Your task to perform on an android device: Open calendar and show me the first week of next month Image 0: 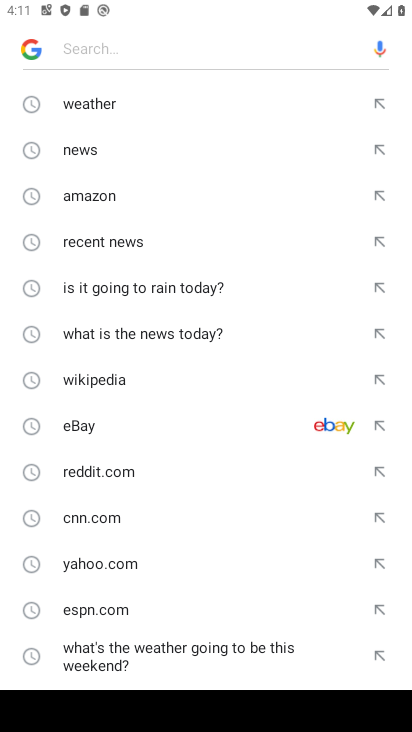
Step 0: press home button
Your task to perform on an android device: Open calendar and show me the first week of next month Image 1: 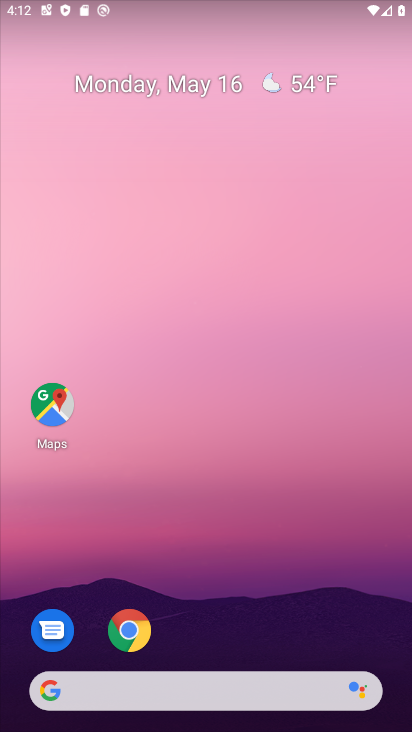
Step 1: drag from (237, 635) to (161, 165)
Your task to perform on an android device: Open calendar and show me the first week of next month Image 2: 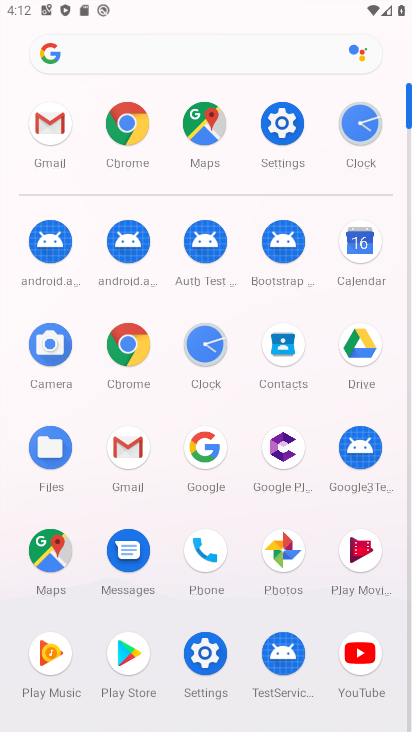
Step 2: click (375, 227)
Your task to perform on an android device: Open calendar and show me the first week of next month Image 3: 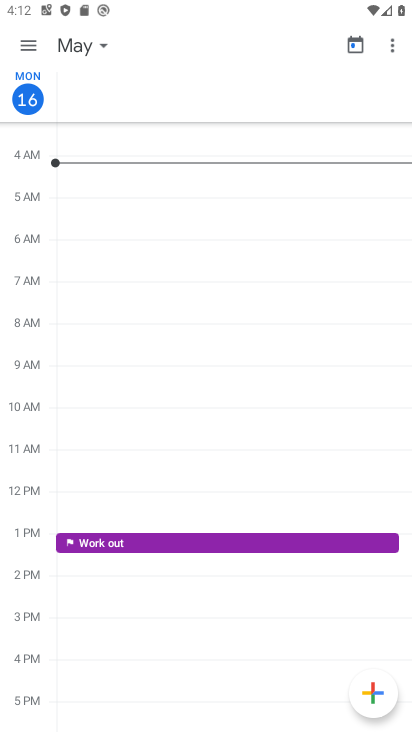
Step 3: click (90, 46)
Your task to perform on an android device: Open calendar and show me the first week of next month Image 4: 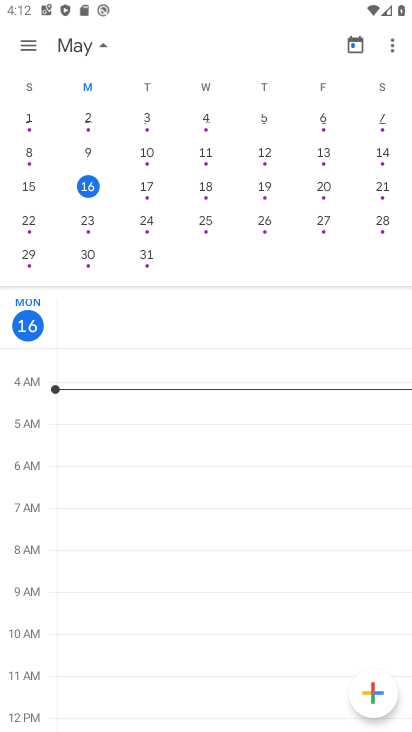
Step 4: drag from (395, 167) to (75, 146)
Your task to perform on an android device: Open calendar and show me the first week of next month Image 5: 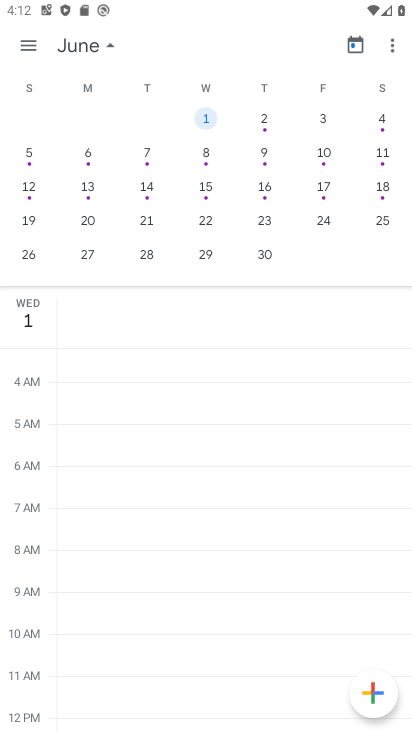
Step 5: click (206, 119)
Your task to perform on an android device: Open calendar and show me the first week of next month Image 6: 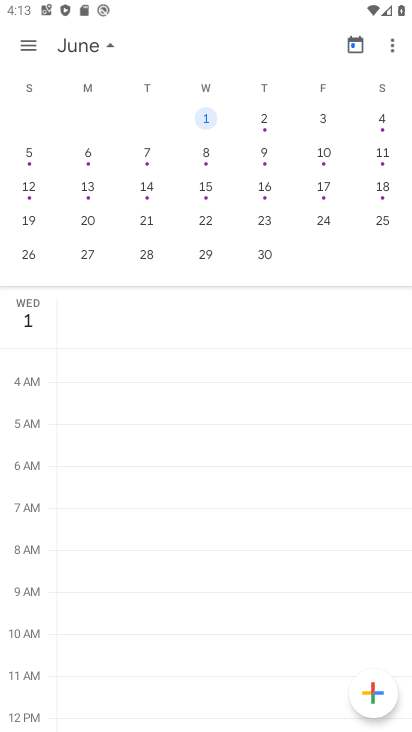
Step 6: click (28, 34)
Your task to perform on an android device: Open calendar and show me the first week of next month Image 7: 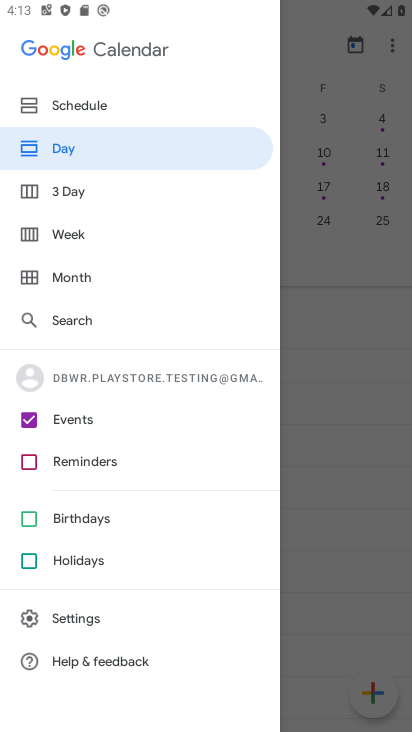
Step 7: click (102, 244)
Your task to perform on an android device: Open calendar and show me the first week of next month Image 8: 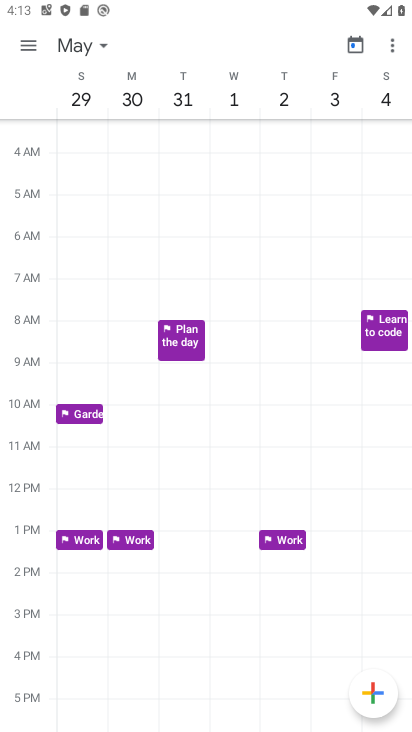
Step 8: click (92, 50)
Your task to perform on an android device: Open calendar and show me the first week of next month Image 9: 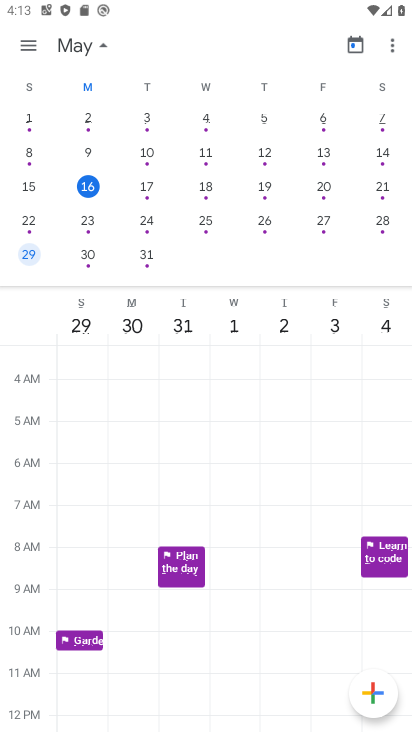
Step 9: drag from (379, 179) to (12, 175)
Your task to perform on an android device: Open calendar and show me the first week of next month Image 10: 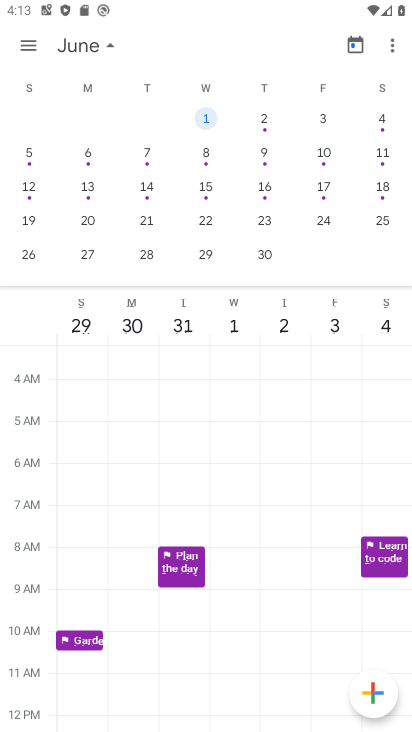
Step 10: click (264, 107)
Your task to perform on an android device: Open calendar and show me the first week of next month Image 11: 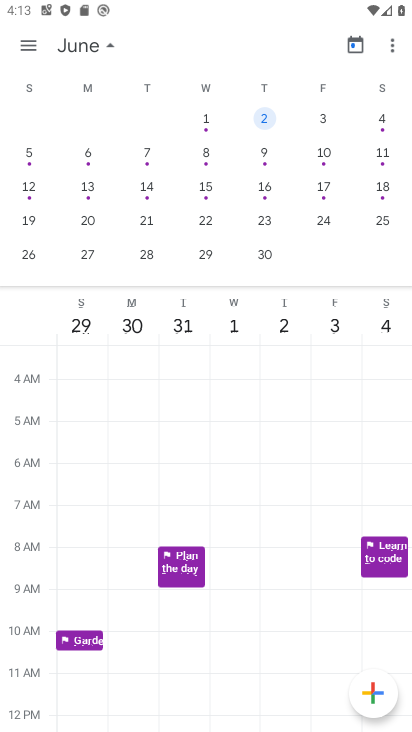
Step 11: click (111, 49)
Your task to perform on an android device: Open calendar and show me the first week of next month Image 12: 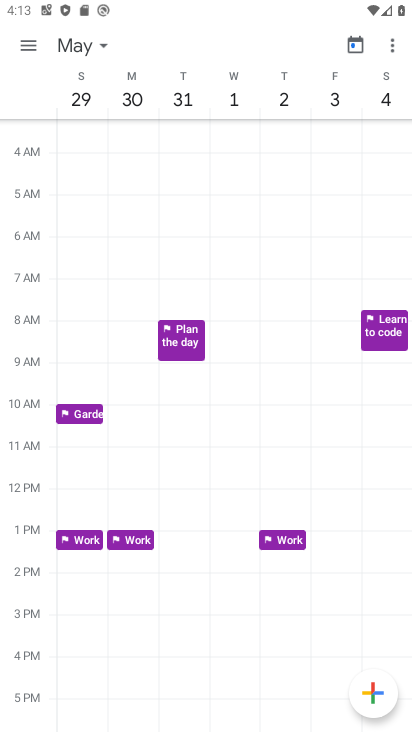
Step 12: click (96, 47)
Your task to perform on an android device: Open calendar and show me the first week of next month Image 13: 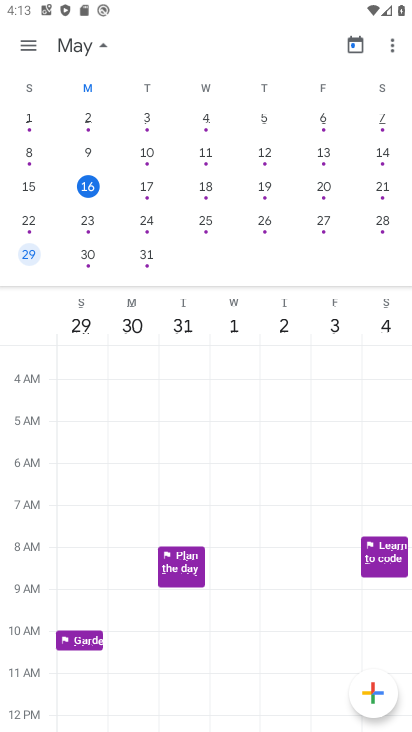
Step 13: drag from (393, 176) to (32, 175)
Your task to perform on an android device: Open calendar and show me the first week of next month Image 14: 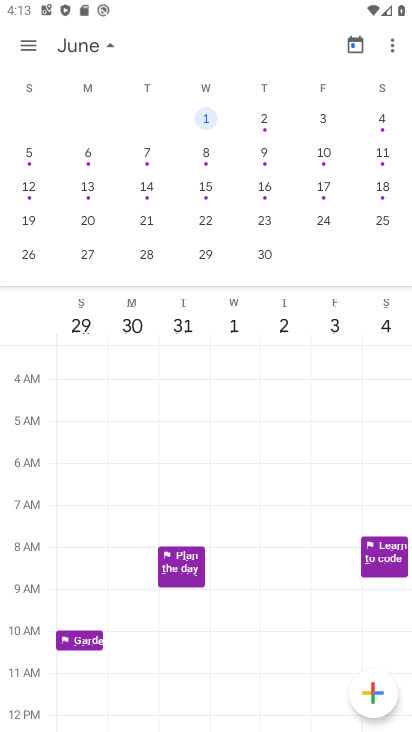
Step 14: click (149, 157)
Your task to perform on an android device: Open calendar and show me the first week of next month Image 15: 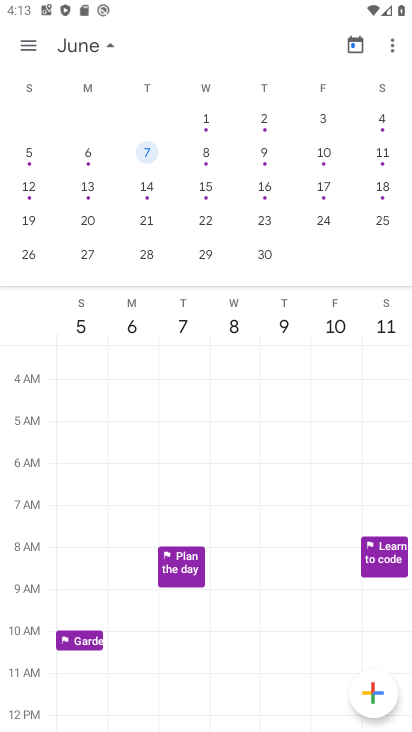
Step 15: click (103, 44)
Your task to perform on an android device: Open calendar and show me the first week of next month Image 16: 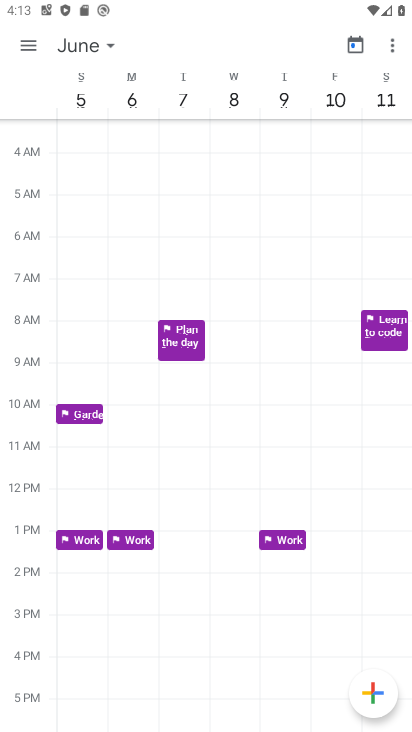
Step 16: task complete